Your task to perform on an android device: What's on my calendar tomorrow? Image 0: 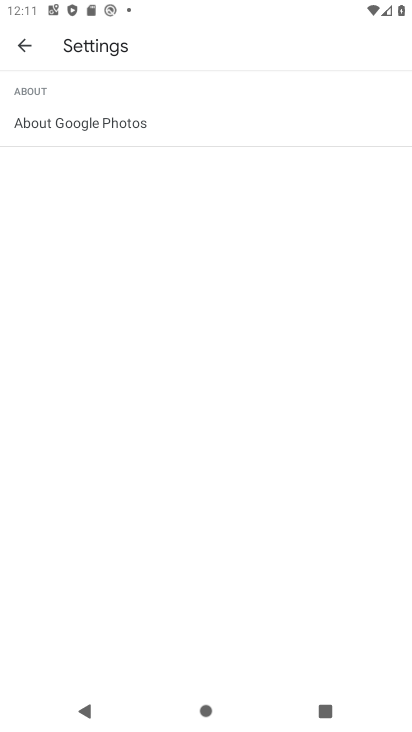
Step 0: press home button
Your task to perform on an android device: What's on my calendar tomorrow? Image 1: 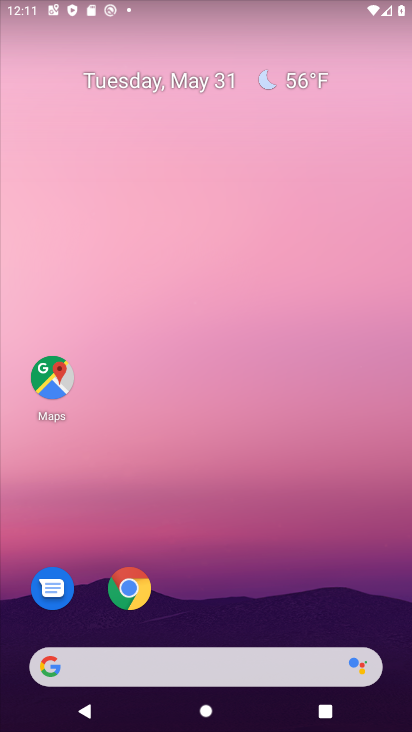
Step 1: drag from (228, 603) to (214, 202)
Your task to perform on an android device: What's on my calendar tomorrow? Image 2: 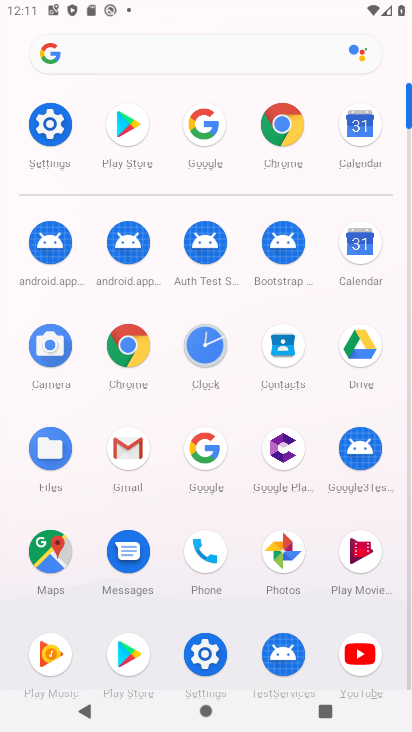
Step 2: click (357, 266)
Your task to perform on an android device: What's on my calendar tomorrow? Image 3: 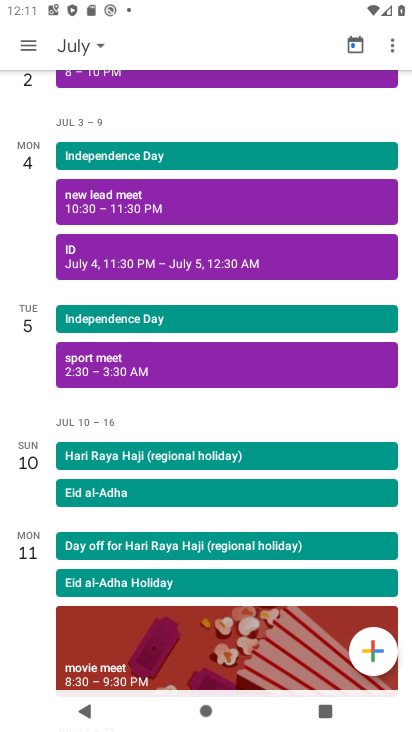
Step 3: task complete